Your task to perform on an android device: What is the news today? Image 0: 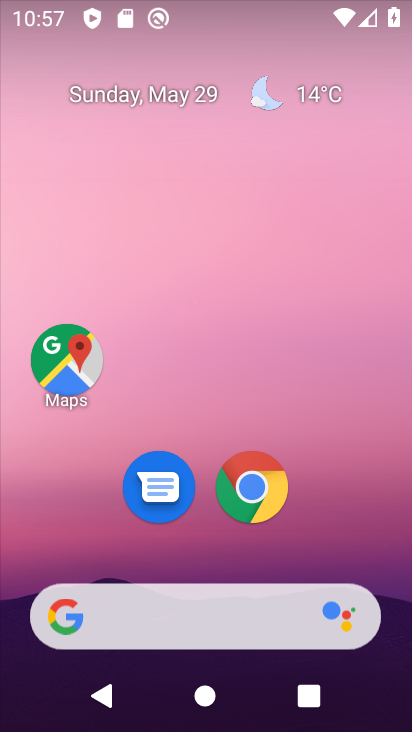
Step 0: drag from (3, 243) to (411, 346)
Your task to perform on an android device: What is the news today? Image 1: 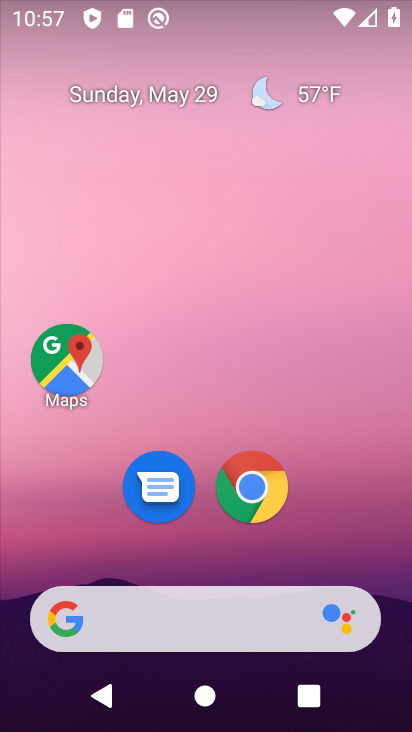
Step 1: task complete